Your task to perform on an android device: Open the phone app and click the voicemail tab. Image 0: 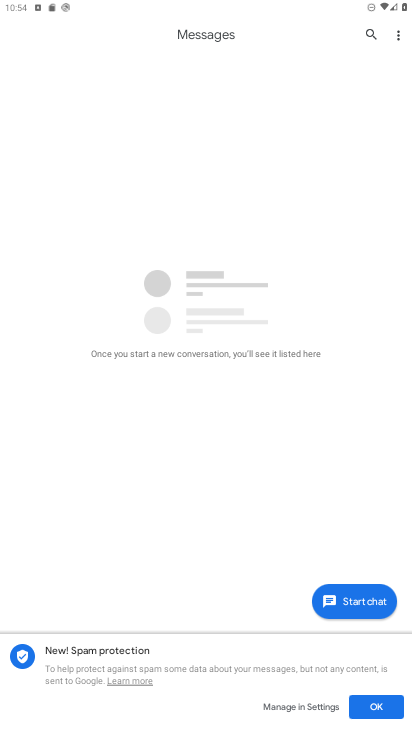
Step 0: press home button
Your task to perform on an android device: Open the phone app and click the voicemail tab. Image 1: 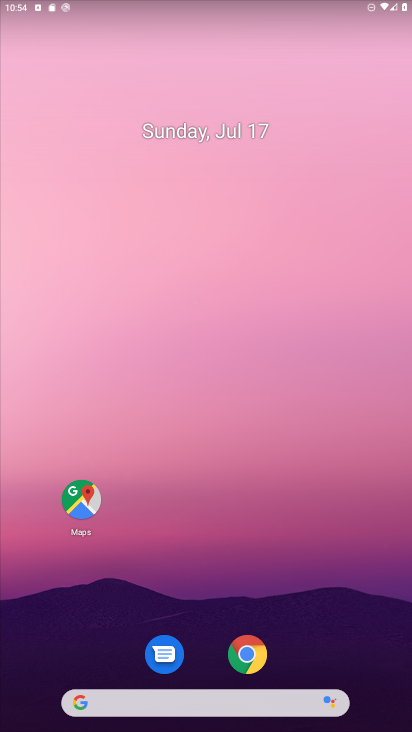
Step 1: drag from (199, 625) to (193, 164)
Your task to perform on an android device: Open the phone app and click the voicemail tab. Image 2: 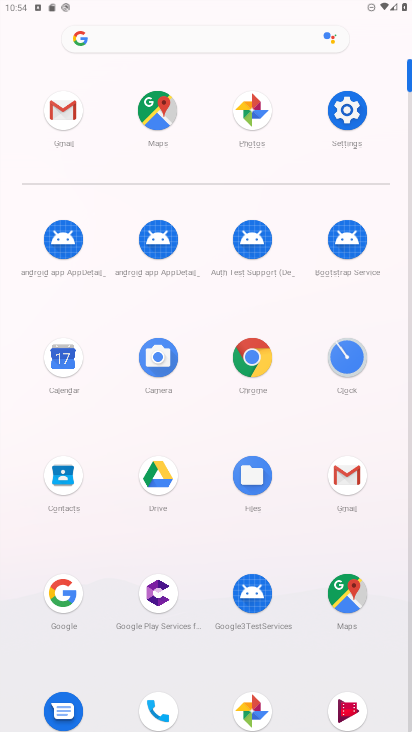
Step 2: click (147, 699)
Your task to perform on an android device: Open the phone app and click the voicemail tab. Image 3: 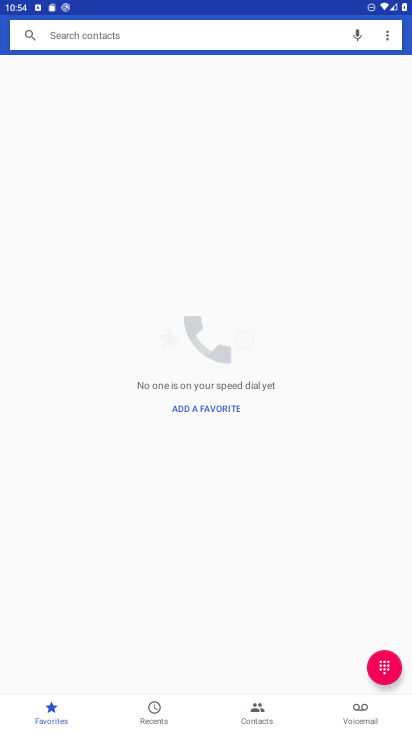
Step 3: click (359, 702)
Your task to perform on an android device: Open the phone app and click the voicemail tab. Image 4: 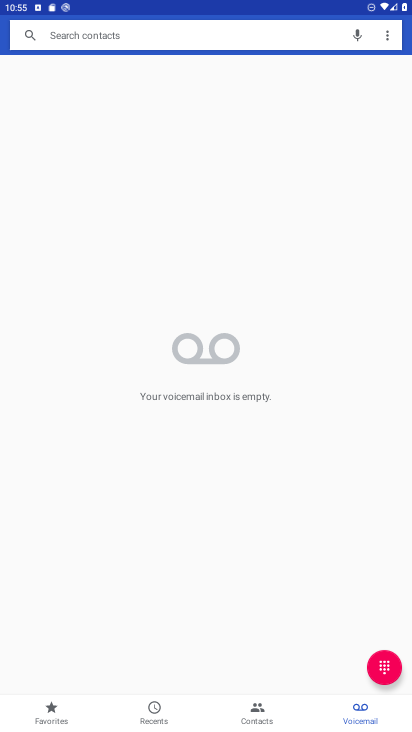
Step 4: task complete